Your task to perform on an android device: create a new album in the google photos Image 0: 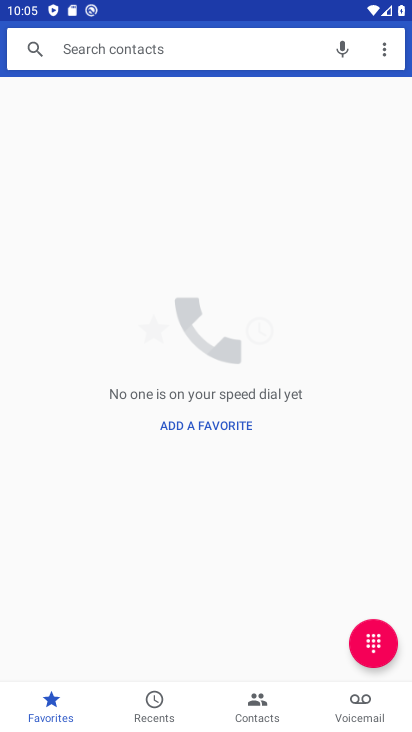
Step 0: press home button
Your task to perform on an android device: create a new album in the google photos Image 1: 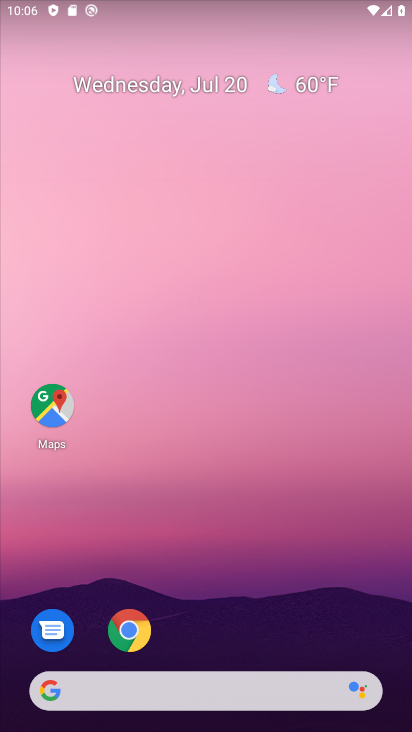
Step 1: drag from (301, 548) to (343, 1)
Your task to perform on an android device: create a new album in the google photos Image 2: 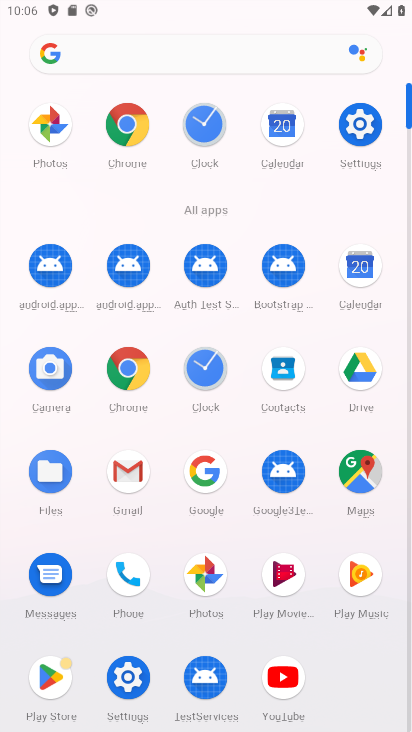
Step 2: click (41, 120)
Your task to perform on an android device: create a new album in the google photos Image 3: 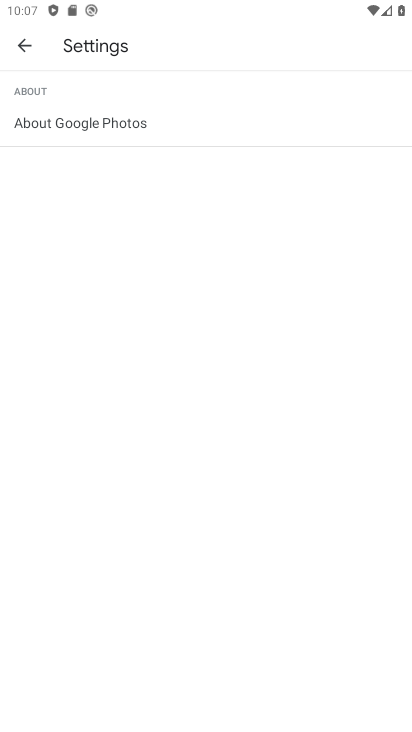
Step 3: press home button
Your task to perform on an android device: create a new album in the google photos Image 4: 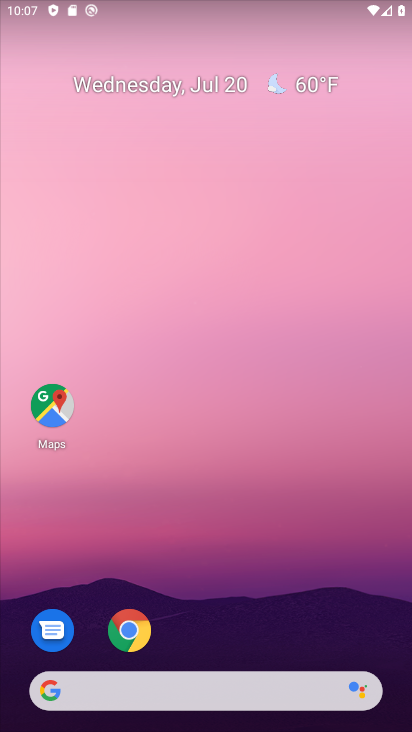
Step 4: drag from (196, 59) to (202, 8)
Your task to perform on an android device: create a new album in the google photos Image 5: 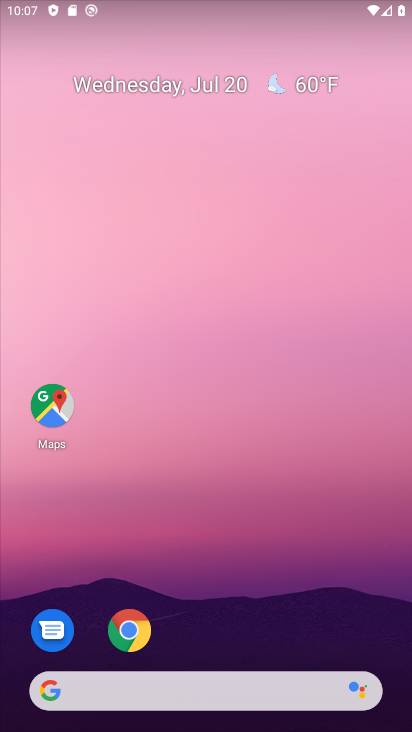
Step 5: drag from (277, 500) to (227, 7)
Your task to perform on an android device: create a new album in the google photos Image 6: 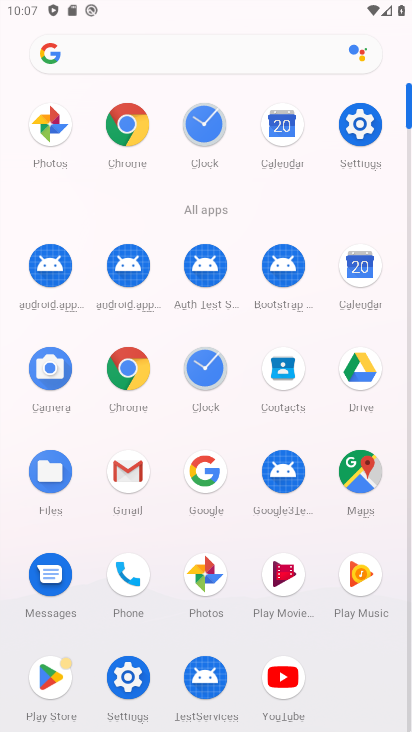
Step 6: click (215, 570)
Your task to perform on an android device: create a new album in the google photos Image 7: 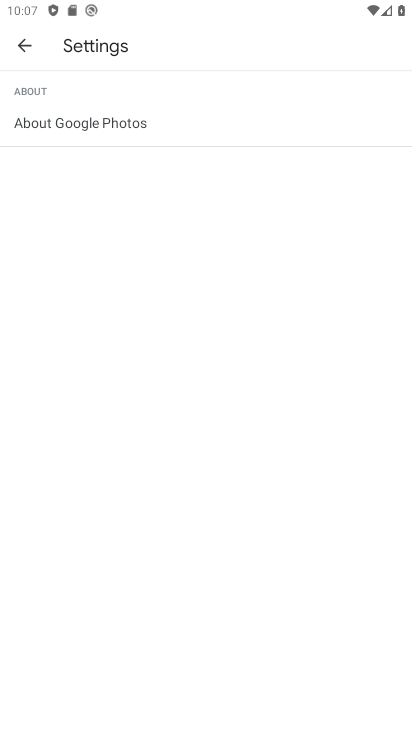
Step 7: click (23, 47)
Your task to perform on an android device: create a new album in the google photos Image 8: 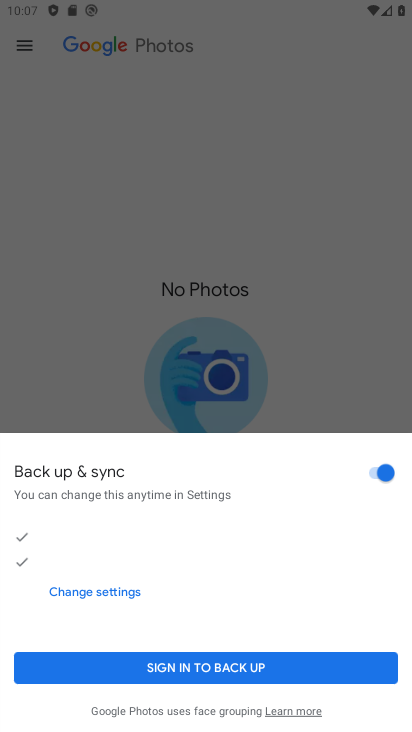
Step 8: click (227, 672)
Your task to perform on an android device: create a new album in the google photos Image 9: 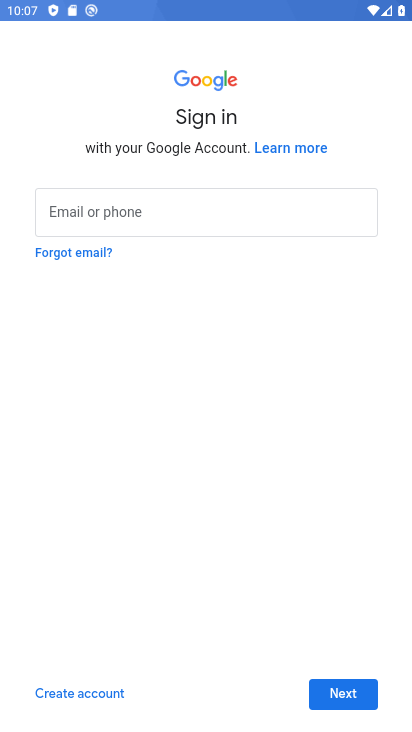
Step 9: task complete